Your task to perform on an android device: Clear all items from cart on target.com. Search for corsair k70 on target.com, select the first entry, and add it to the cart. Image 0: 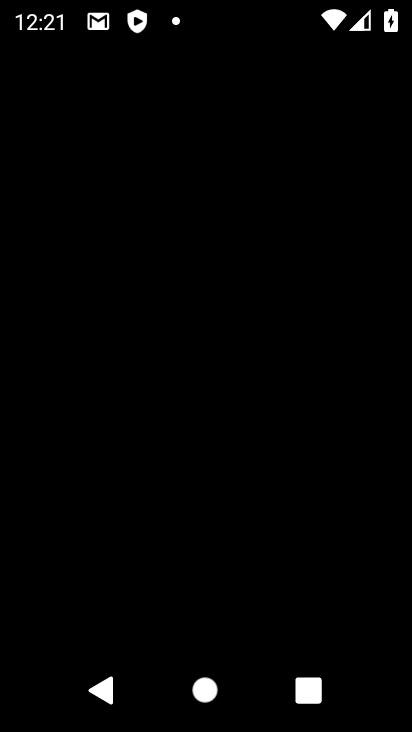
Step 0: press home button
Your task to perform on an android device: Clear all items from cart on target.com. Search for corsair k70 on target.com, select the first entry, and add it to the cart. Image 1: 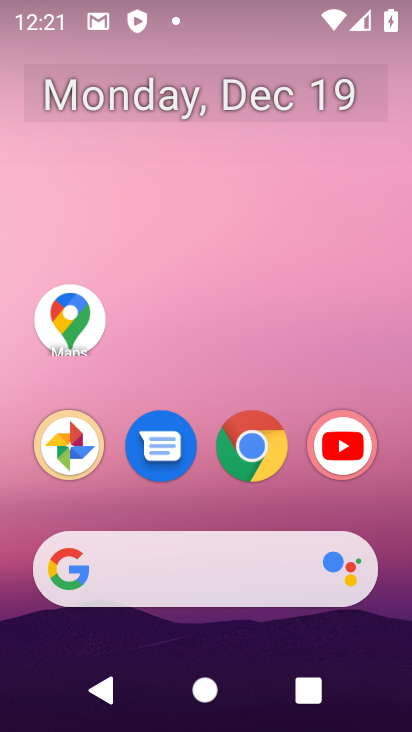
Step 1: click (280, 470)
Your task to perform on an android device: Clear all items from cart on target.com. Search for corsair k70 on target.com, select the first entry, and add it to the cart. Image 2: 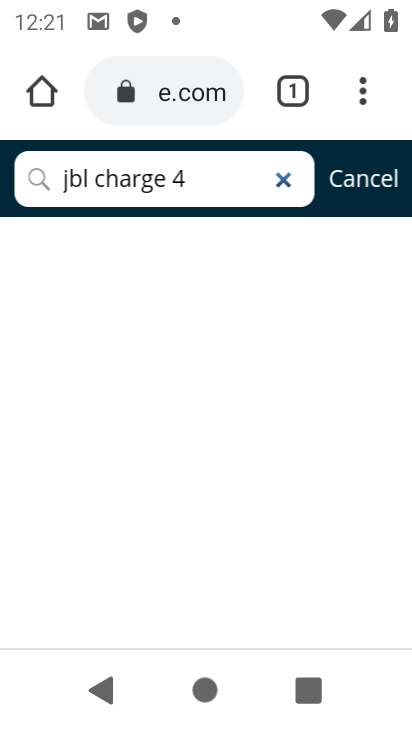
Step 2: click (197, 112)
Your task to perform on an android device: Clear all items from cart on target.com. Search for corsair k70 on target.com, select the first entry, and add it to the cart. Image 3: 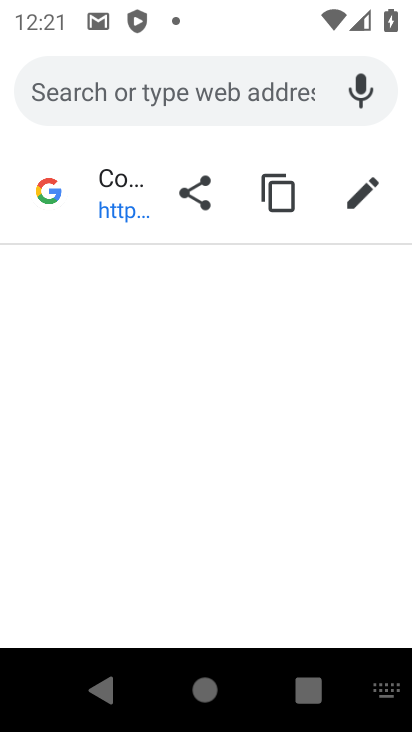
Step 3: type "target"
Your task to perform on an android device: Clear all items from cart on target.com. Search for corsair k70 on target.com, select the first entry, and add it to the cart. Image 4: 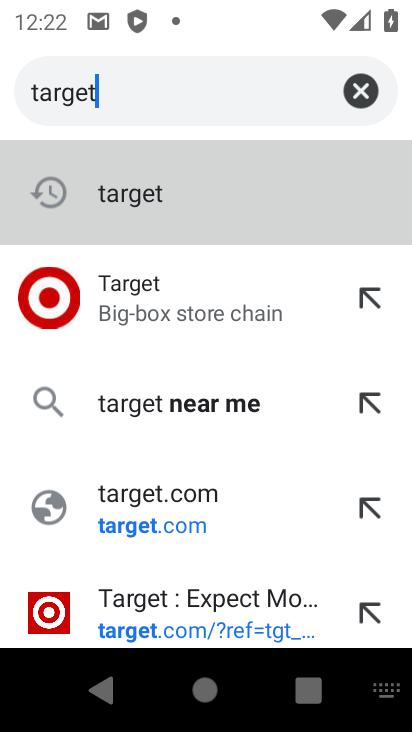
Step 4: click (142, 317)
Your task to perform on an android device: Clear all items from cart on target.com. Search for corsair k70 on target.com, select the first entry, and add it to the cart. Image 5: 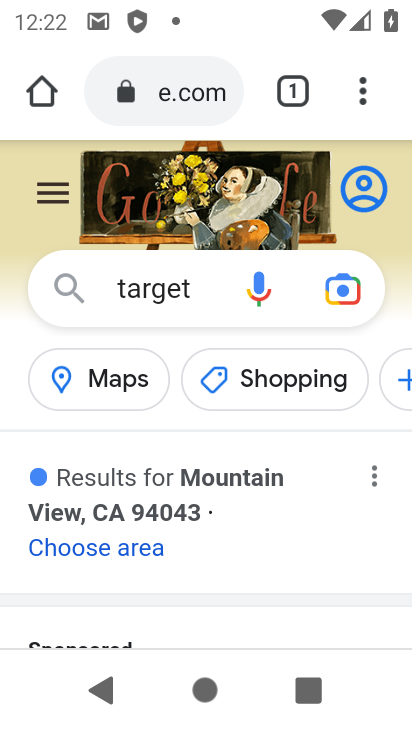
Step 5: click (197, 632)
Your task to perform on an android device: Clear all items from cart on target.com. Search for corsair k70 on target.com, select the first entry, and add it to the cart. Image 6: 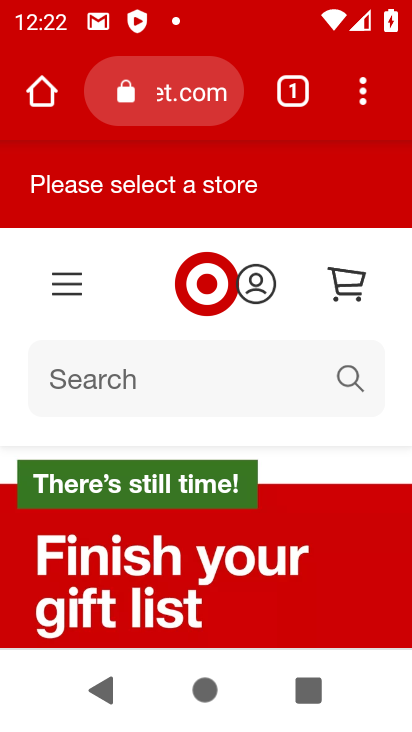
Step 6: click (169, 362)
Your task to perform on an android device: Clear all items from cart on target.com. Search for corsair k70 on target.com, select the first entry, and add it to the cart. Image 7: 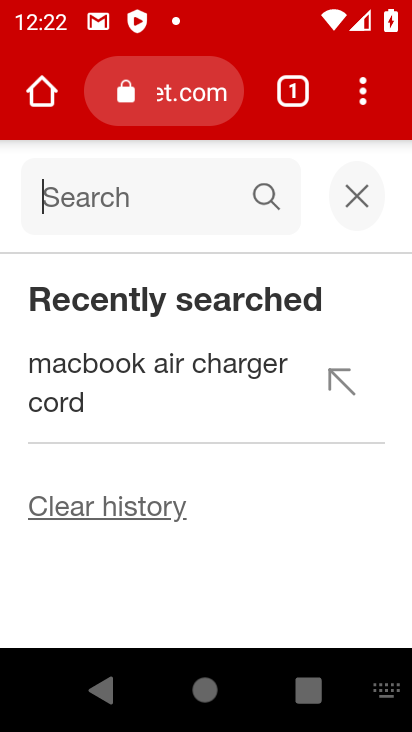
Step 7: type "corsair k70"
Your task to perform on an android device: Clear all items from cart on target.com. Search for corsair k70 on target.com, select the first entry, and add it to the cart. Image 8: 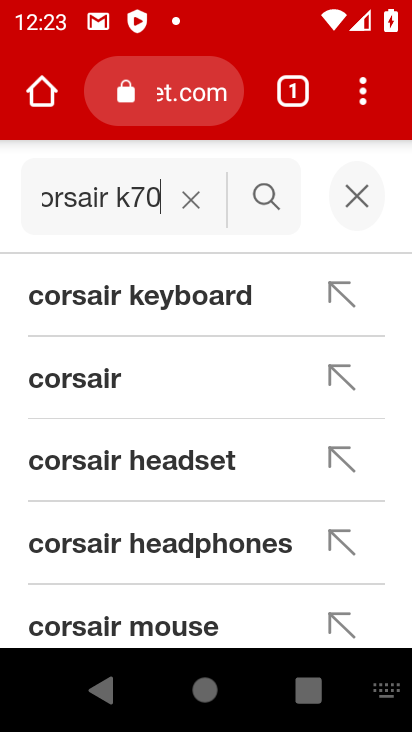
Step 8: click (152, 294)
Your task to perform on an android device: Clear all items from cart on target.com. Search for corsair k70 on target.com, select the first entry, and add it to the cart. Image 9: 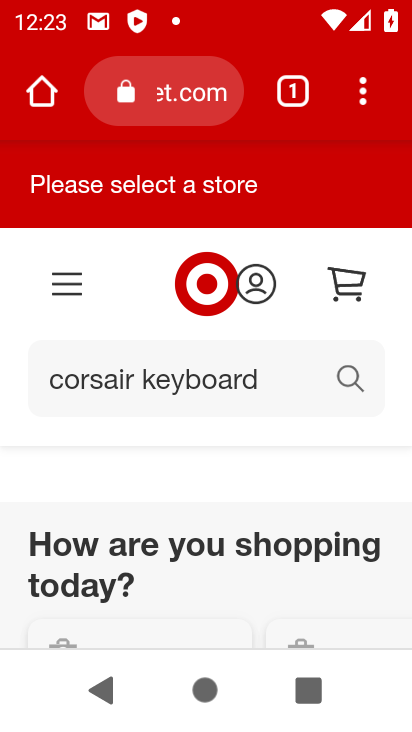
Step 9: click (236, 599)
Your task to perform on an android device: Clear all items from cart on target.com. Search for corsair k70 on target.com, select the first entry, and add it to the cart. Image 10: 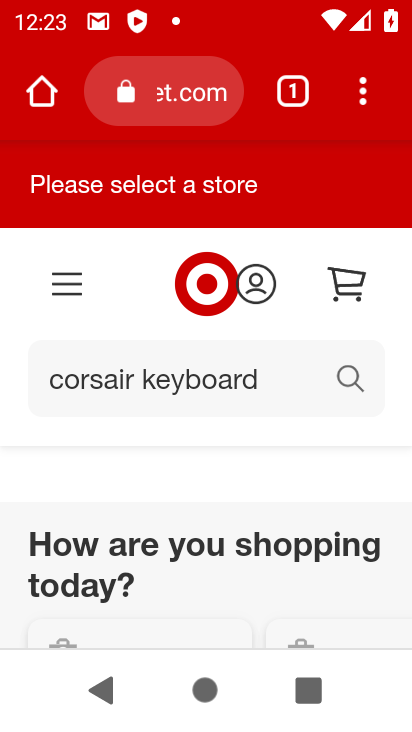
Step 10: click (236, 598)
Your task to perform on an android device: Clear all items from cart on target.com. Search for corsair k70 on target.com, select the first entry, and add it to the cart. Image 11: 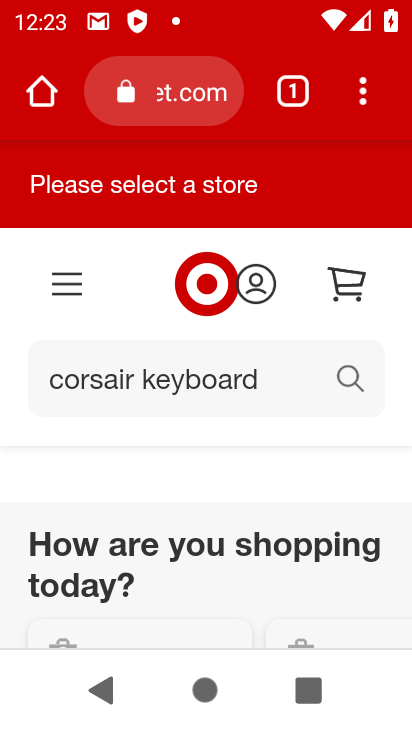
Step 11: task complete